Your task to perform on an android device: Is it going to rain tomorrow? Image 0: 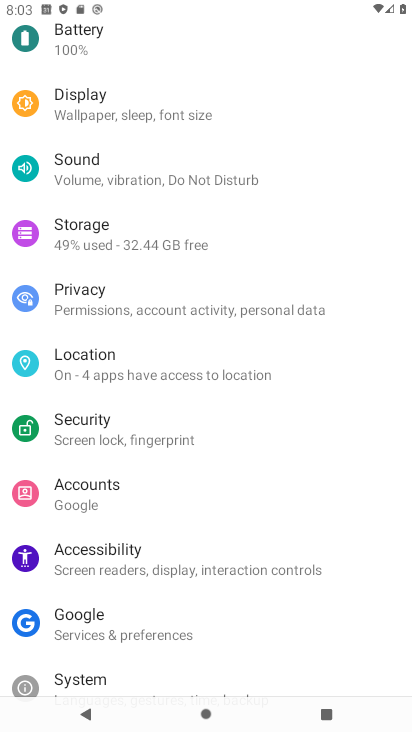
Step 0: press home button
Your task to perform on an android device: Is it going to rain tomorrow? Image 1: 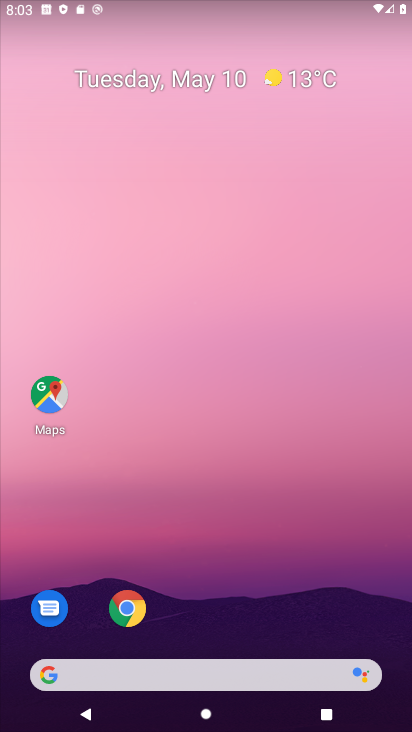
Step 1: click (313, 75)
Your task to perform on an android device: Is it going to rain tomorrow? Image 2: 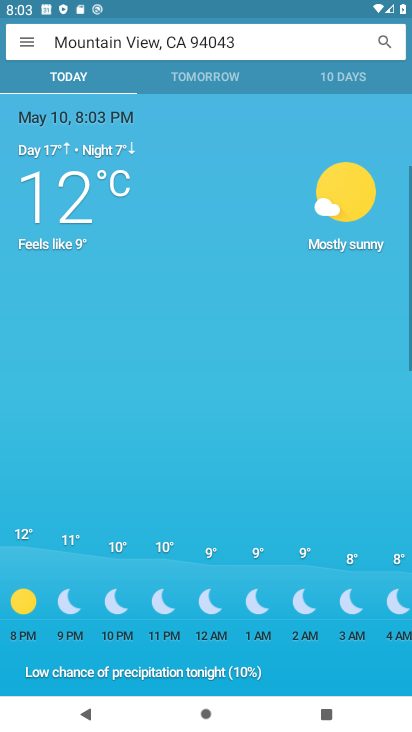
Step 2: click (211, 78)
Your task to perform on an android device: Is it going to rain tomorrow? Image 3: 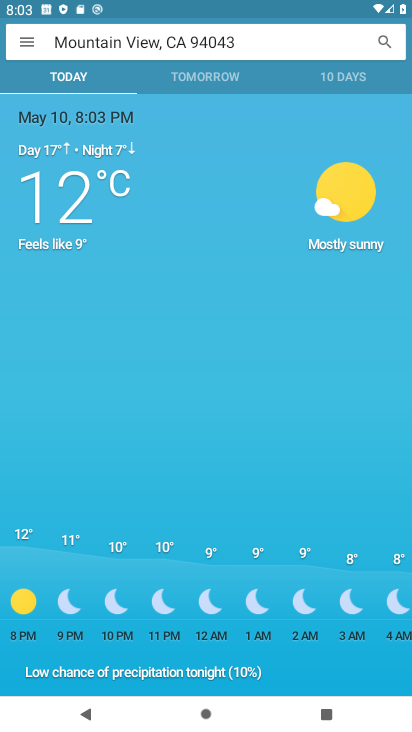
Step 3: click (205, 76)
Your task to perform on an android device: Is it going to rain tomorrow? Image 4: 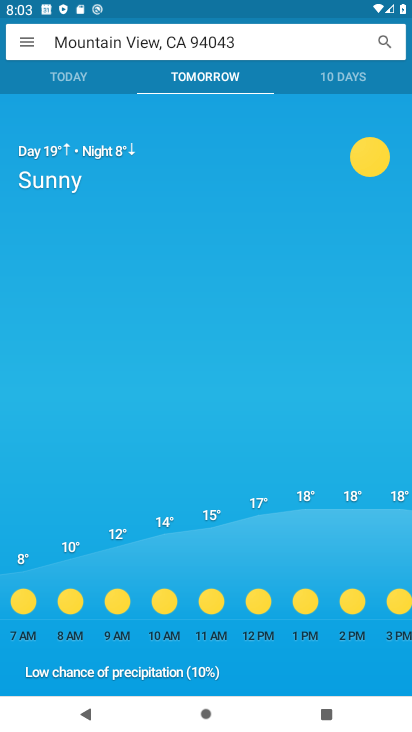
Step 4: task complete